Your task to perform on an android device: toggle improve location accuracy Image 0: 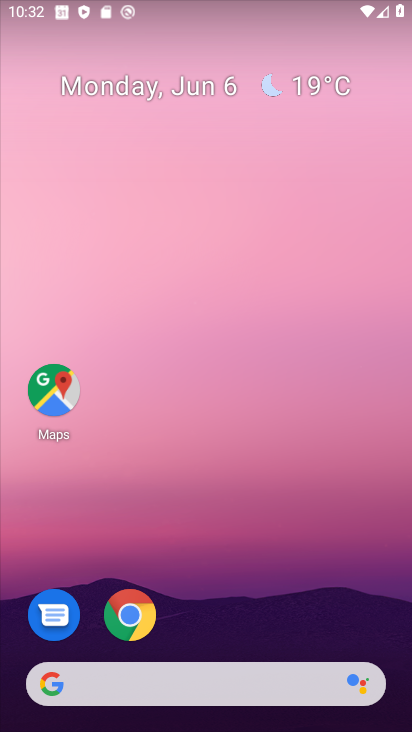
Step 0: task complete